Your task to perform on an android device: Open settings Image 0: 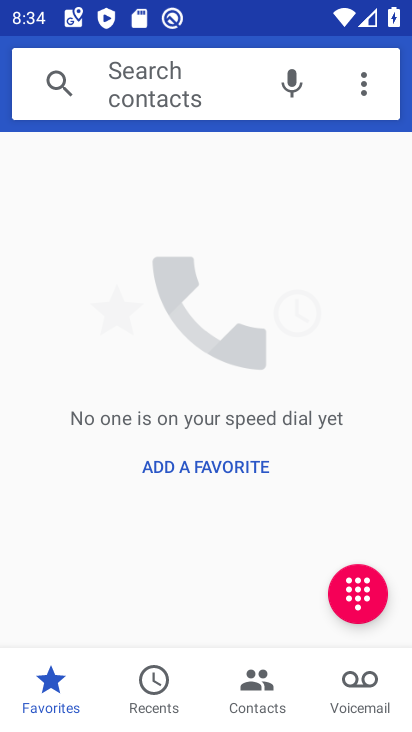
Step 0: press home button
Your task to perform on an android device: Open settings Image 1: 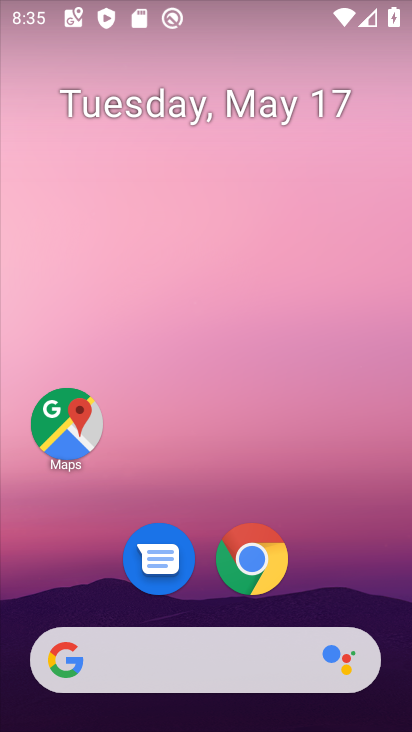
Step 1: drag from (259, 664) to (278, 267)
Your task to perform on an android device: Open settings Image 2: 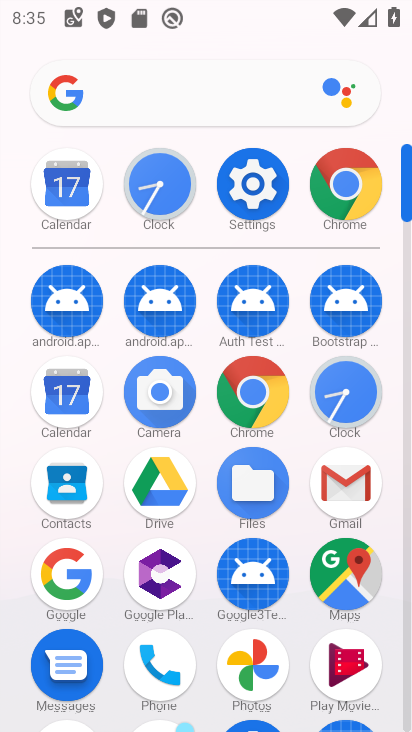
Step 2: click (236, 179)
Your task to perform on an android device: Open settings Image 3: 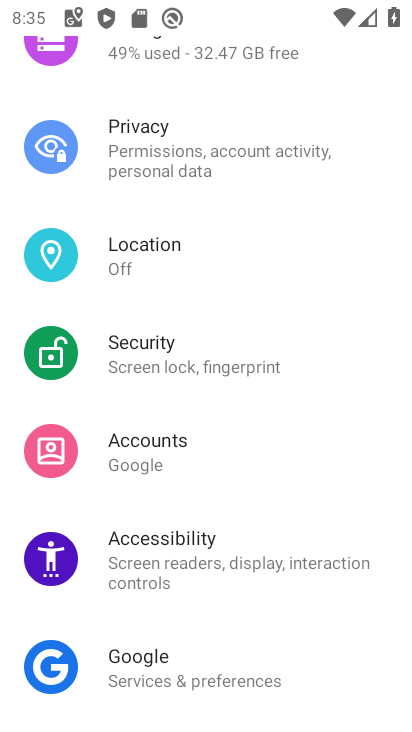
Step 3: task complete